Your task to perform on an android device: Is it going to rain this weekend? Image 0: 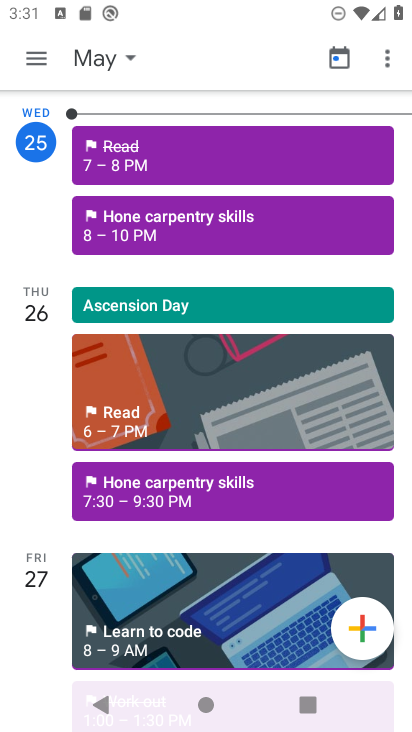
Step 0: click (40, 59)
Your task to perform on an android device: Is it going to rain this weekend? Image 1: 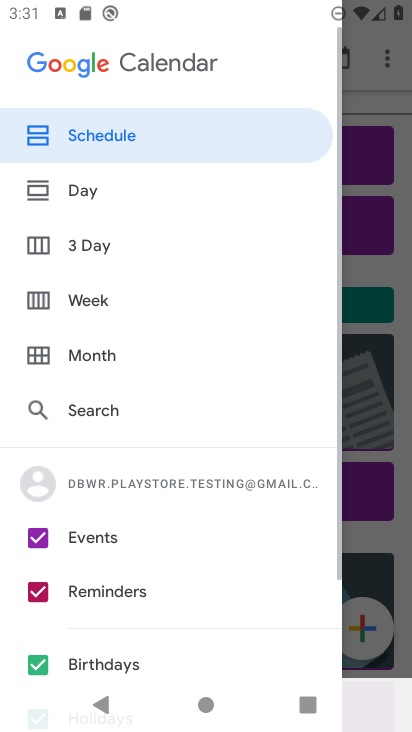
Step 1: click (133, 306)
Your task to perform on an android device: Is it going to rain this weekend? Image 2: 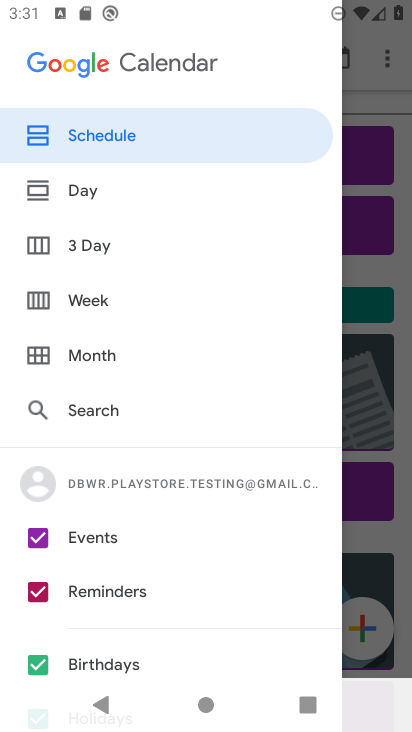
Step 2: click (142, 296)
Your task to perform on an android device: Is it going to rain this weekend? Image 3: 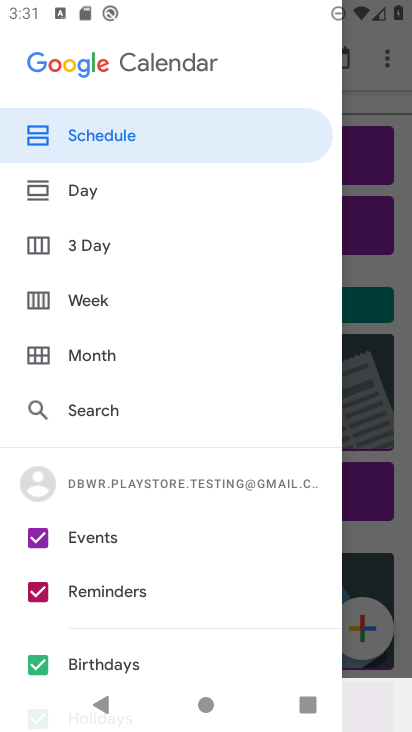
Step 3: click (142, 296)
Your task to perform on an android device: Is it going to rain this weekend? Image 4: 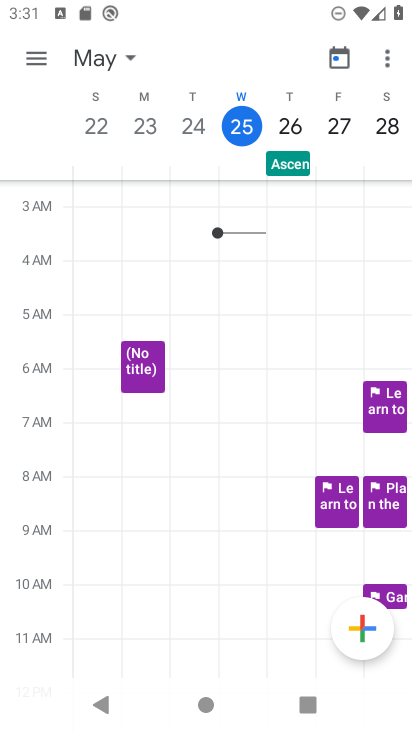
Step 4: task complete